Your task to perform on an android device: search for starred emails in the gmail app Image 0: 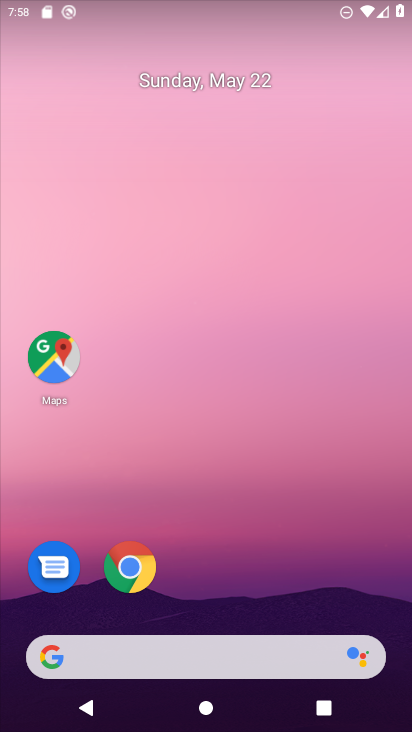
Step 0: drag from (243, 613) to (334, 34)
Your task to perform on an android device: search for starred emails in the gmail app Image 1: 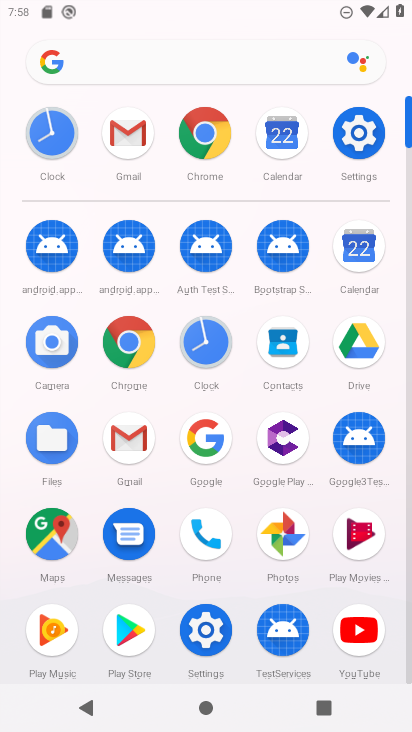
Step 1: click (134, 122)
Your task to perform on an android device: search for starred emails in the gmail app Image 2: 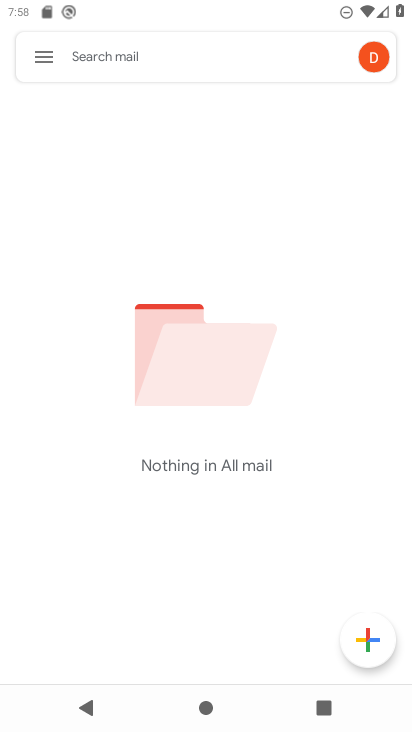
Step 2: click (45, 54)
Your task to perform on an android device: search for starred emails in the gmail app Image 3: 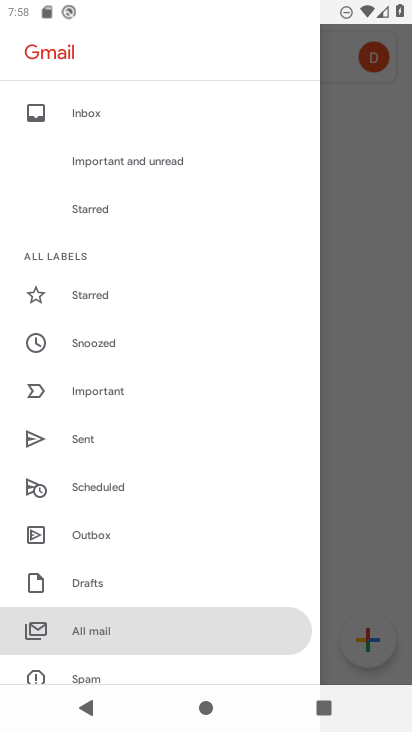
Step 3: click (106, 294)
Your task to perform on an android device: search for starred emails in the gmail app Image 4: 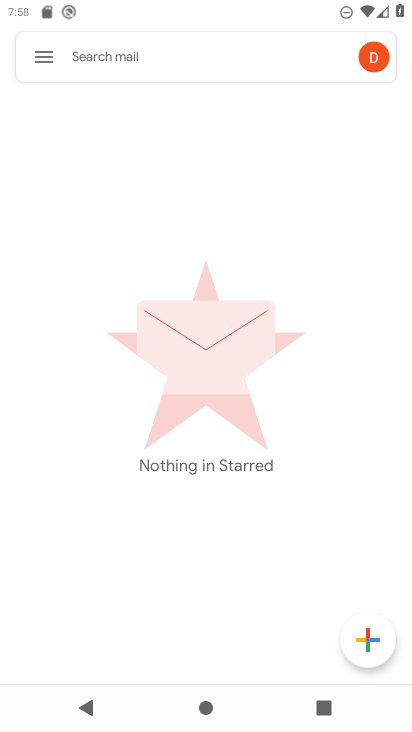
Step 4: task complete